Your task to perform on an android device: check the backup settings in the google photos Image 0: 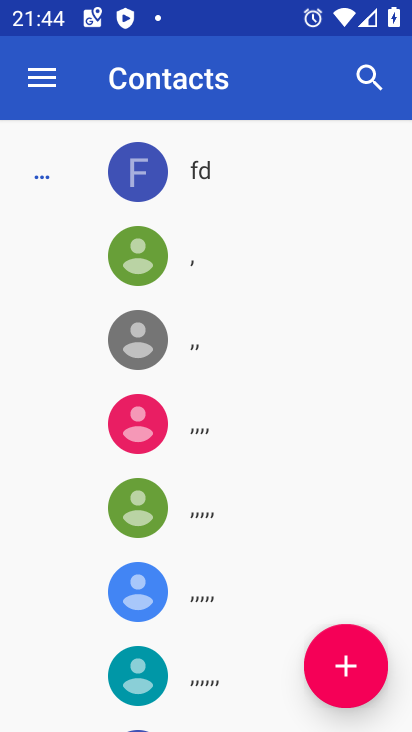
Step 0: press home button
Your task to perform on an android device: check the backup settings in the google photos Image 1: 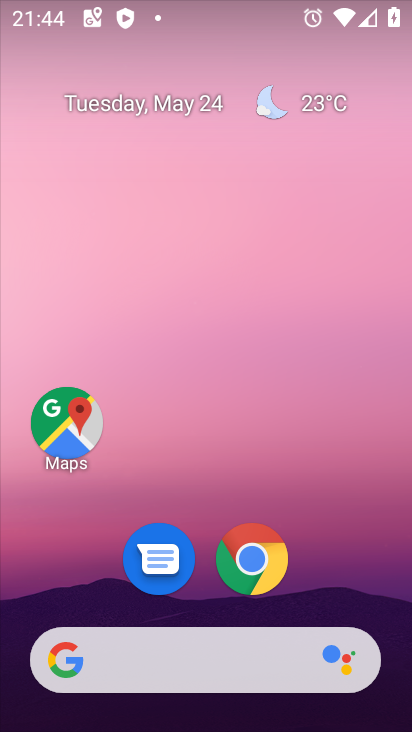
Step 1: drag from (359, 551) to (284, 155)
Your task to perform on an android device: check the backup settings in the google photos Image 2: 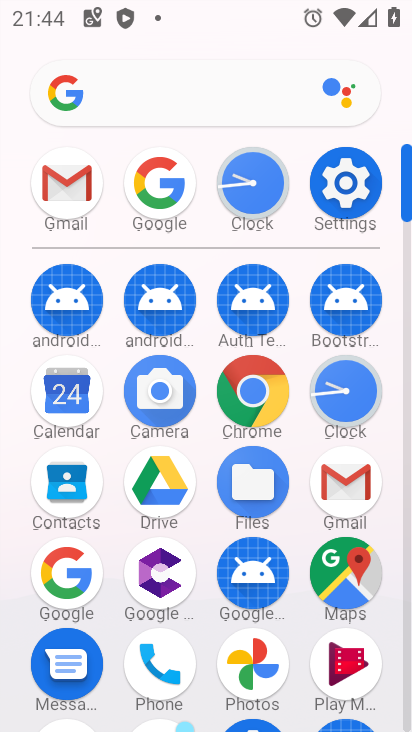
Step 2: click (258, 655)
Your task to perform on an android device: check the backup settings in the google photos Image 3: 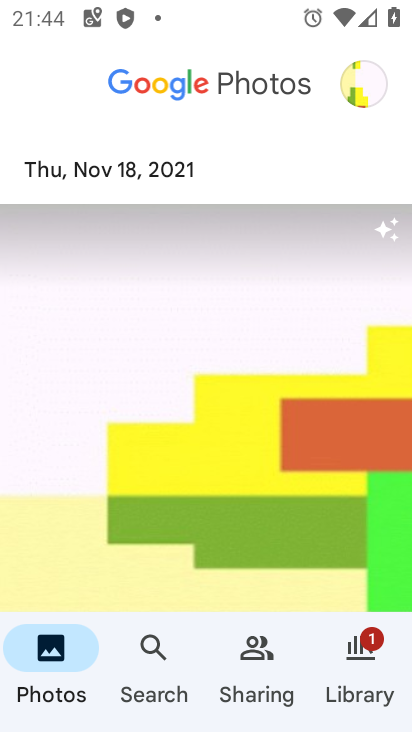
Step 3: click (369, 66)
Your task to perform on an android device: check the backup settings in the google photos Image 4: 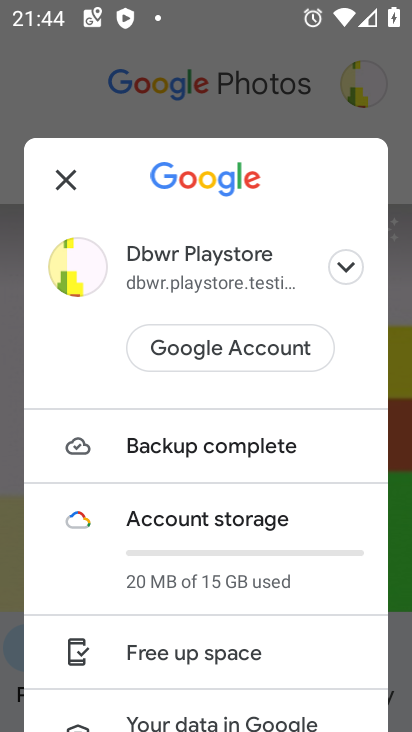
Step 4: drag from (196, 598) to (256, 174)
Your task to perform on an android device: check the backup settings in the google photos Image 5: 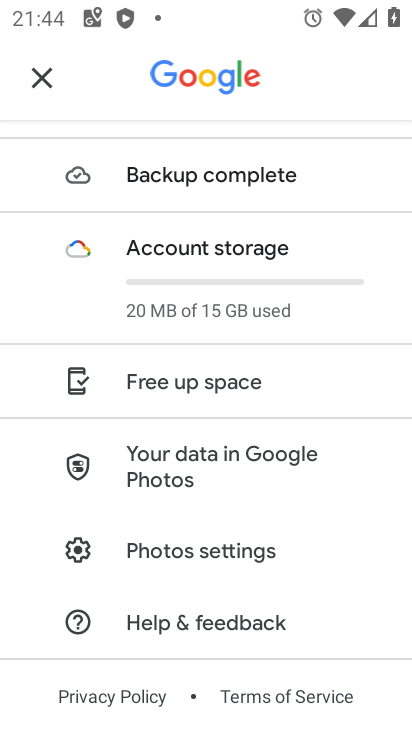
Step 5: click (214, 557)
Your task to perform on an android device: check the backup settings in the google photos Image 6: 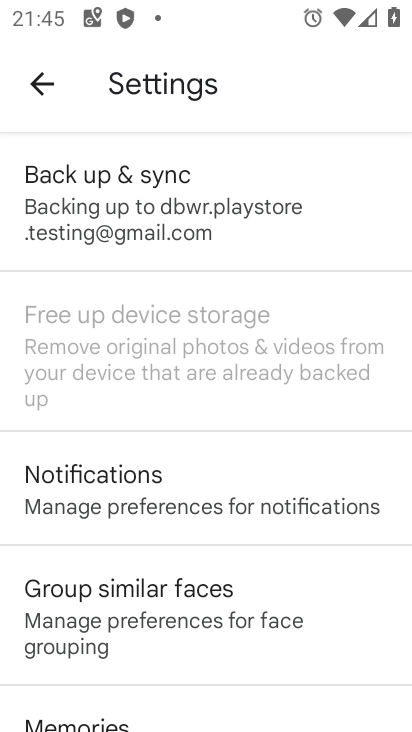
Step 6: click (257, 223)
Your task to perform on an android device: check the backup settings in the google photos Image 7: 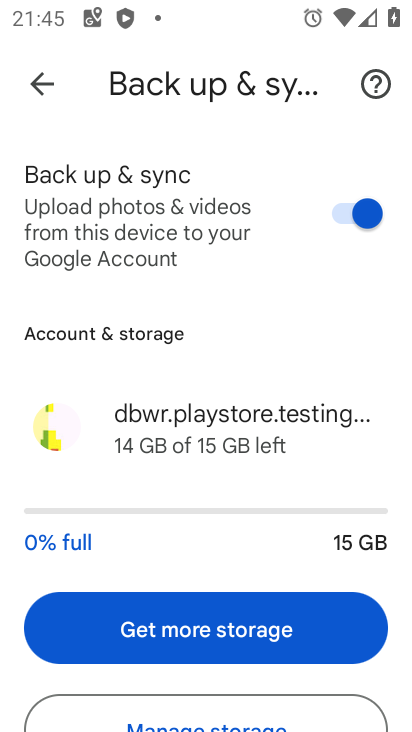
Step 7: task complete